Your task to perform on an android device: turn on priority inbox in the gmail app Image 0: 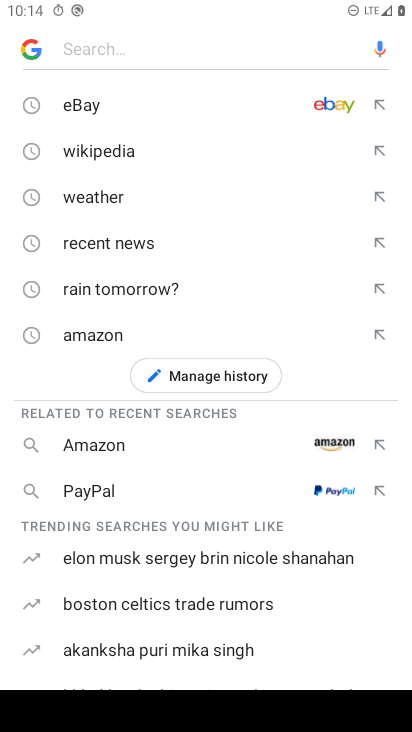
Step 0: press home button
Your task to perform on an android device: turn on priority inbox in the gmail app Image 1: 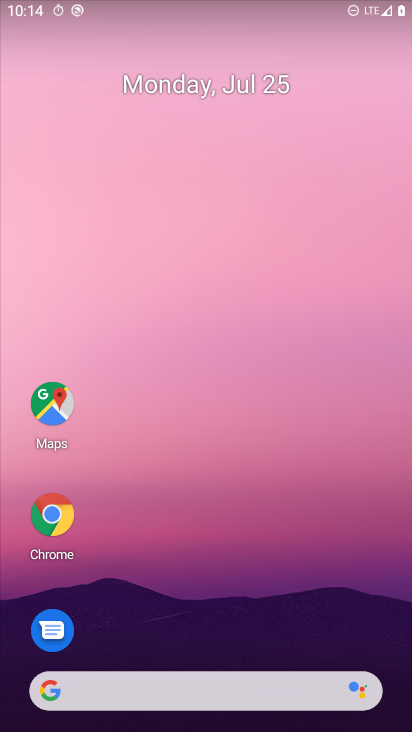
Step 1: drag from (96, 470) to (226, 125)
Your task to perform on an android device: turn on priority inbox in the gmail app Image 2: 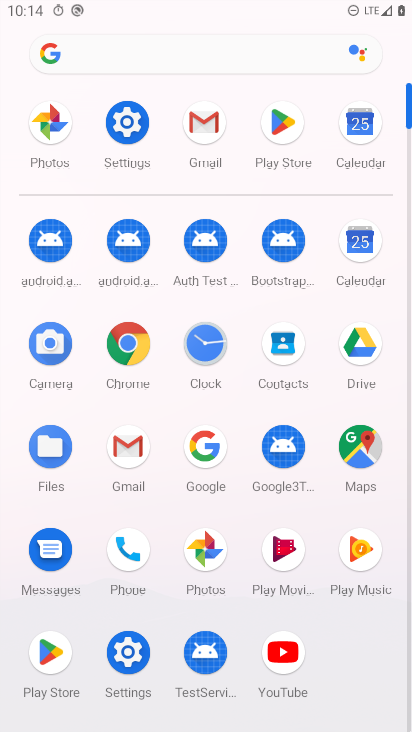
Step 2: click (110, 480)
Your task to perform on an android device: turn on priority inbox in the gmail app Image 3: 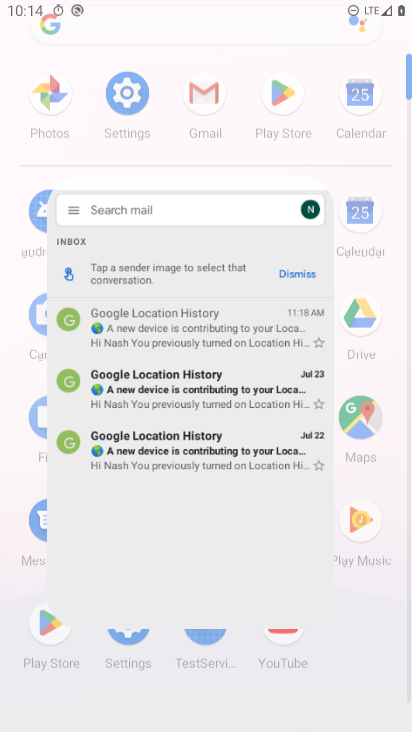
Step 3: click (115, 457)
Your task to perform on an android device: turn on priority inbox in the gmail app Image 4: 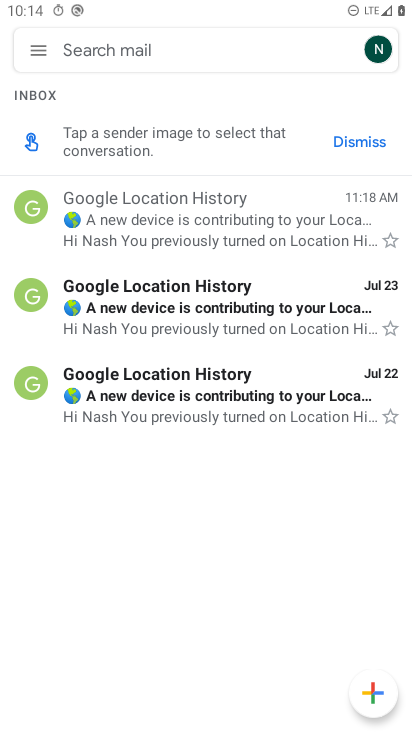
Step 4: click (51, 42)
Your task to perform on an android device: turn on priority inbox in the gmail app Image 5: 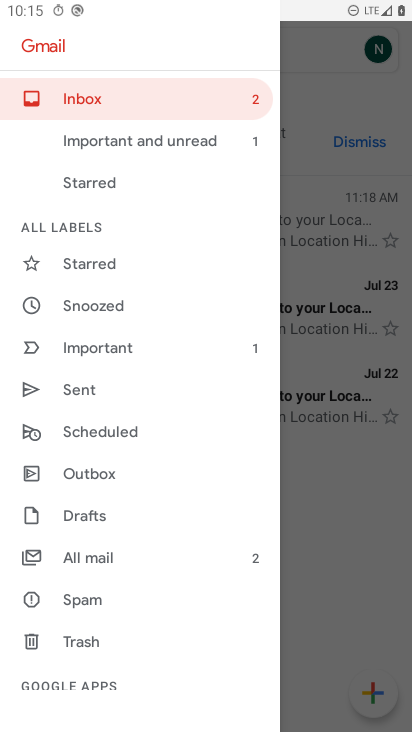
Step 5: drag from (179, 456) to (227, 213)
Your task to perform on an android device: turn on priority inbox in the gmail app Image 6: 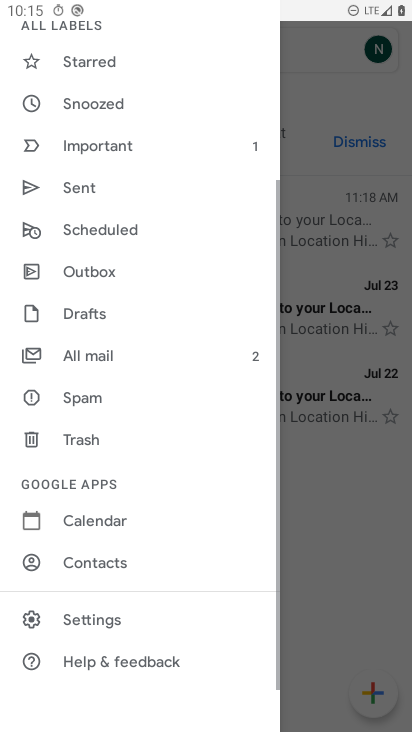
Step 6: click (112, 621)
Your task to perform on an android device: turn on priority inbox in the gmail app Image 7: 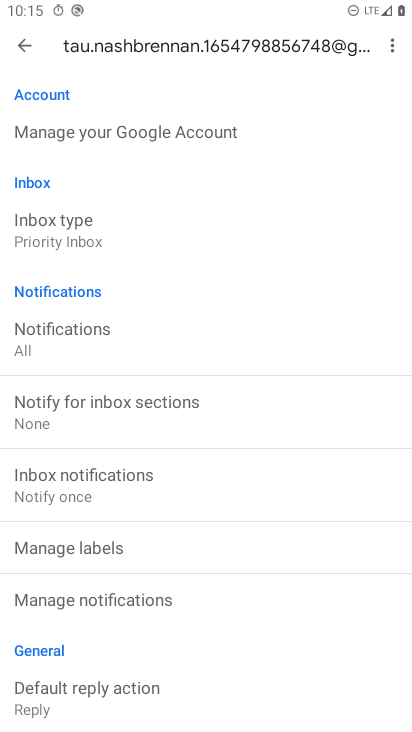
Step 7: task complete